Your task to perform on an android device: Open accessibility settings Image 0: 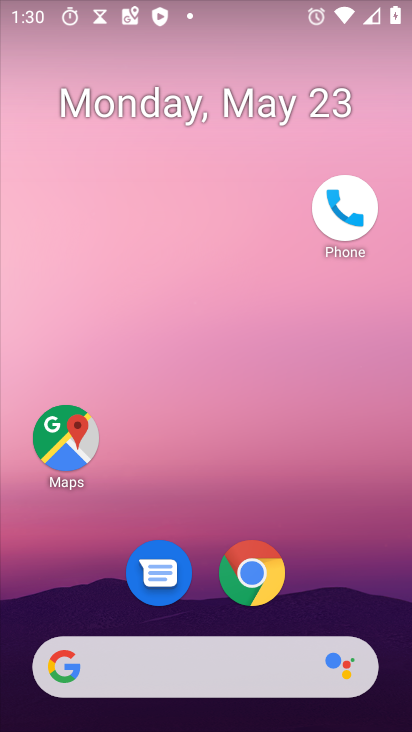
Step 0: press home button
Your task to perform on an android device: Open accessibility settings Image 1: 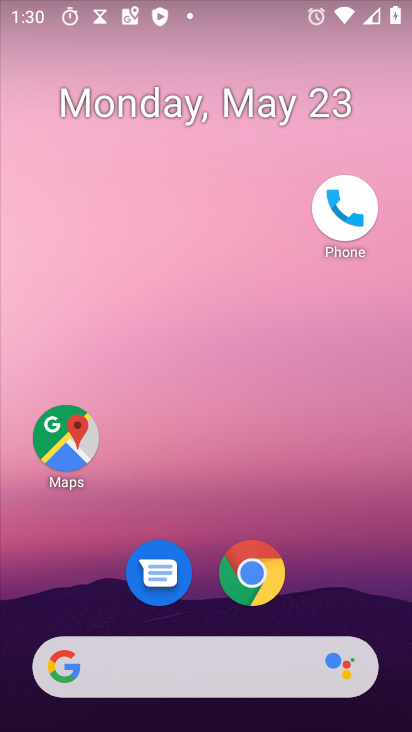
Step 1: press home button
Your task to perform on an android device: Open accessibility settings Image 2: 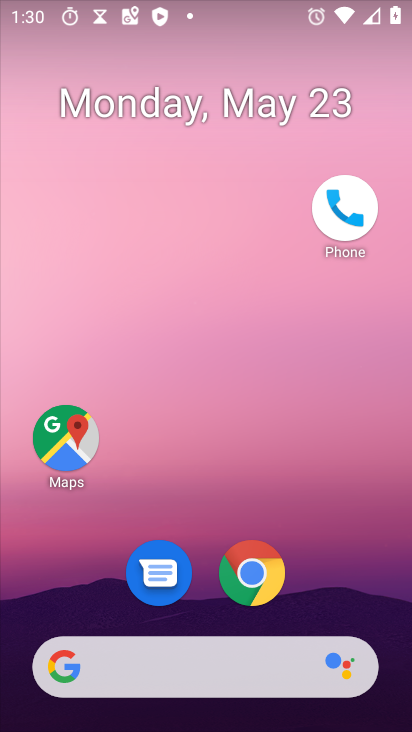
Step 2: drag from (206, 590) to (251, 167)
Your task to perform on an android device: Open accessibility settings Image 3: 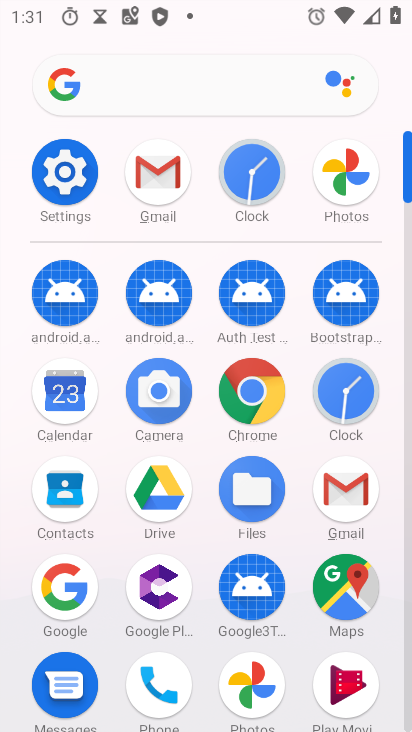
Step 3: click (70, 179)
Your task to perform on an android device: Open accessibility settings Image 4: 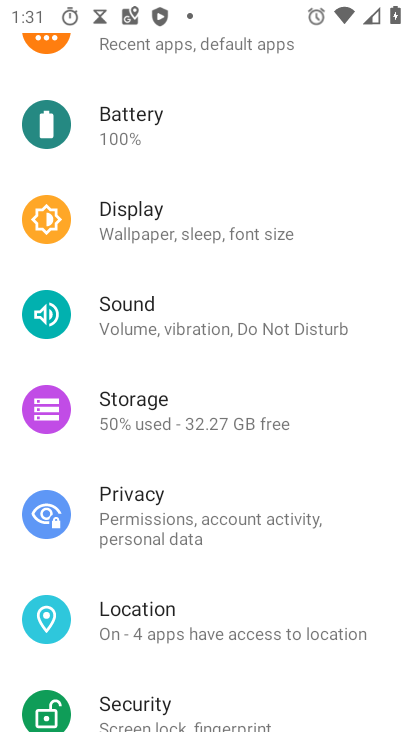
Step 4: drag from (258, 636) to (369, 162)
Your task to perform on an android device: Open accessibility settings Image 5: 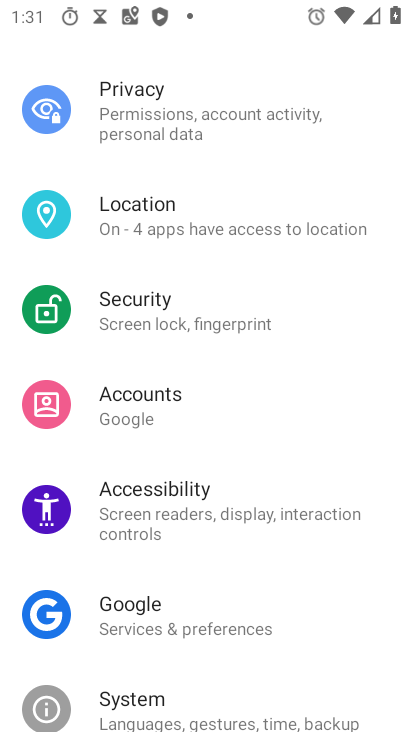
Step 5: click (207, 498)
Your task to perform on an android device: Open accessibility settings Image 6: 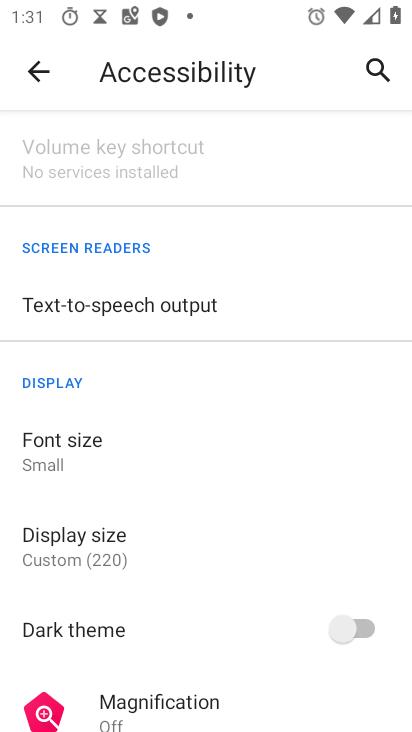
Step 6: task complete